Your task to perform on an android device: toggle data saver in the chrome app Image 0: 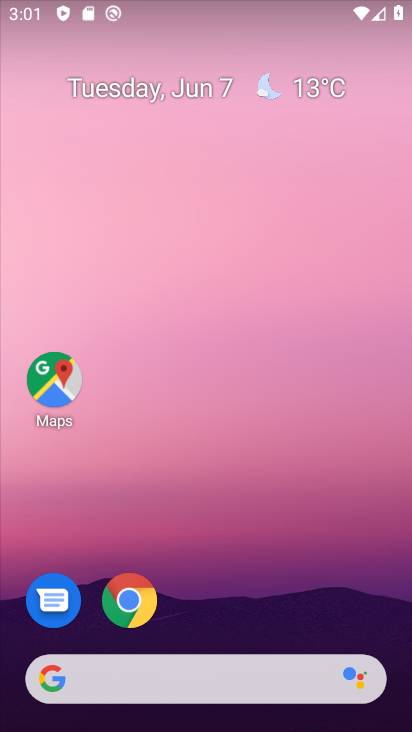
Step 0: drag from (228, 562) to (135, 80)
Your task to perform on an android device: toggle data saver in the chrome app Image 1: 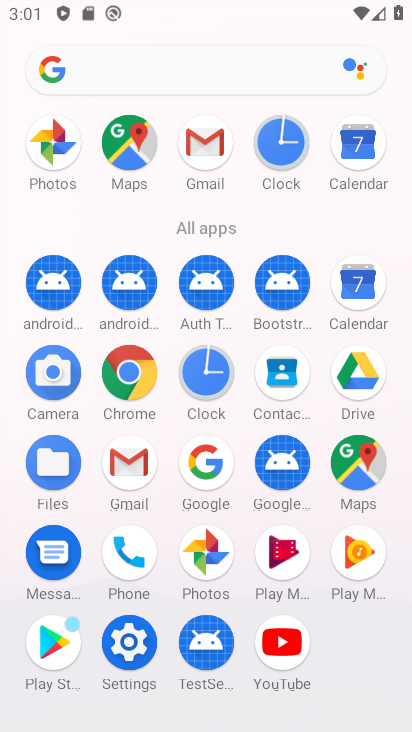
Step 1: click (130, 370)
Your task to perform on an android device: toggle data saver in the chrome app Image 2: 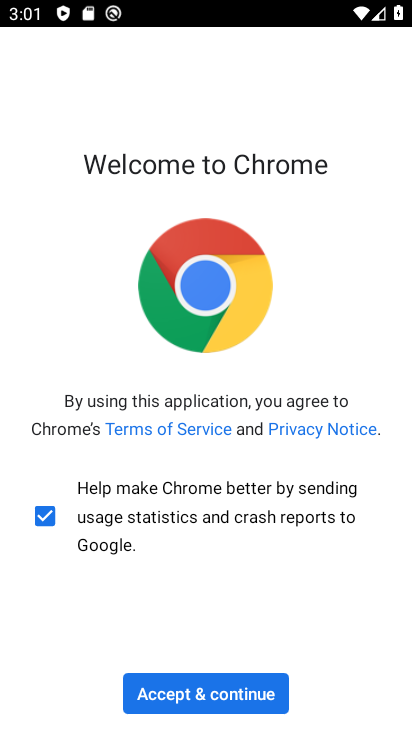
Step 2: click (170, 675)
Your task to perform on an android device: toggle data saver in the chrome app Image 3: 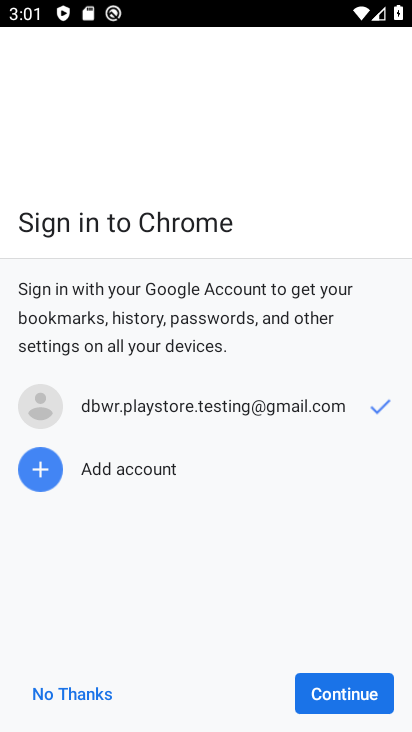
Step 3: click (399, 703)
Your task to perform on an android device: toggle data saver in the chrome app Image 4: 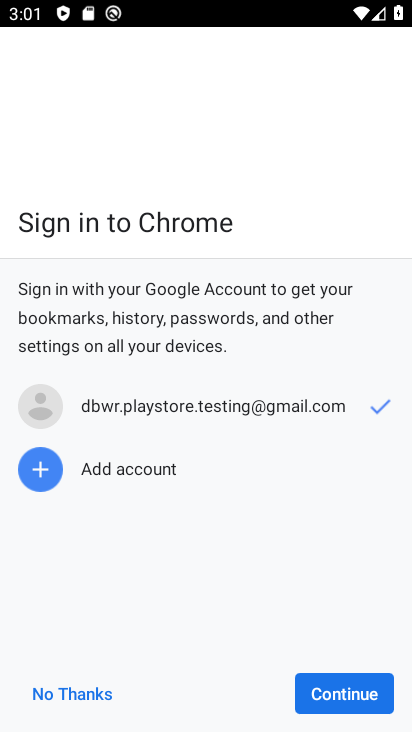
Step 4: click (369, 700)
Your task to perform on an android device: toggle data saver in the chrome app Image 5: 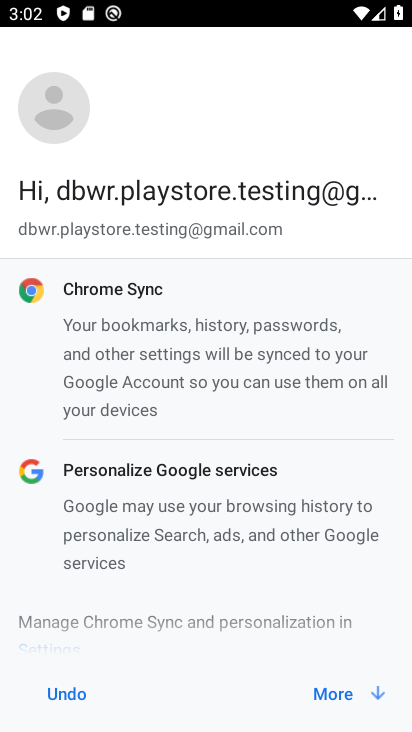
Step 5: click (334, 698)
Your task to perform on an android device: toggle data saver in the chrome app Image 6: 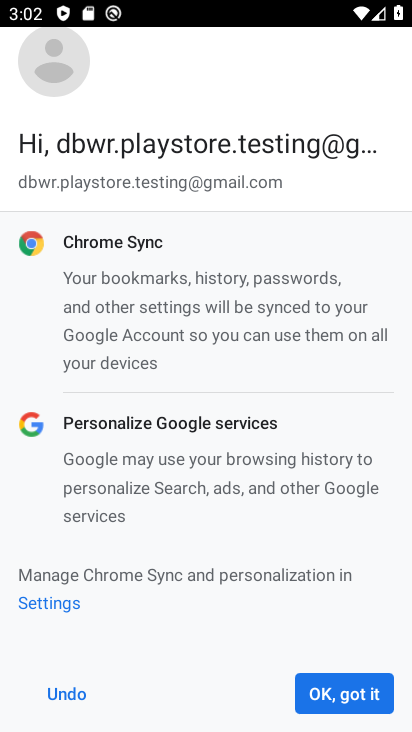
Step 6: click (334, 698)
Your task to perform on an android device: toggle data saver in the chrome app Image 7: 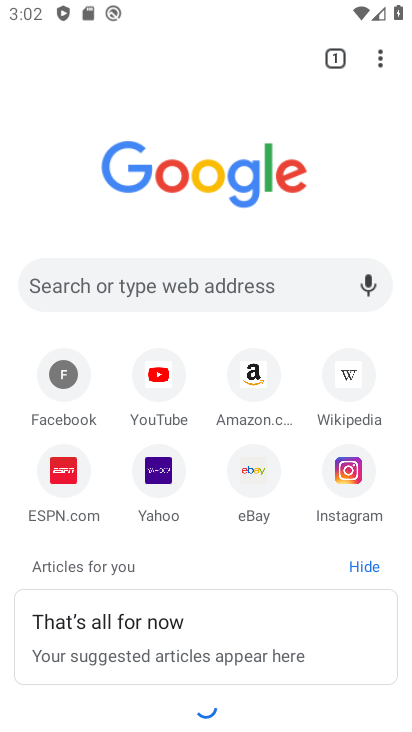
Step 7: click (377, 61)
Your task to perform on an android device: toggle data saver in the chrome app Image 8: 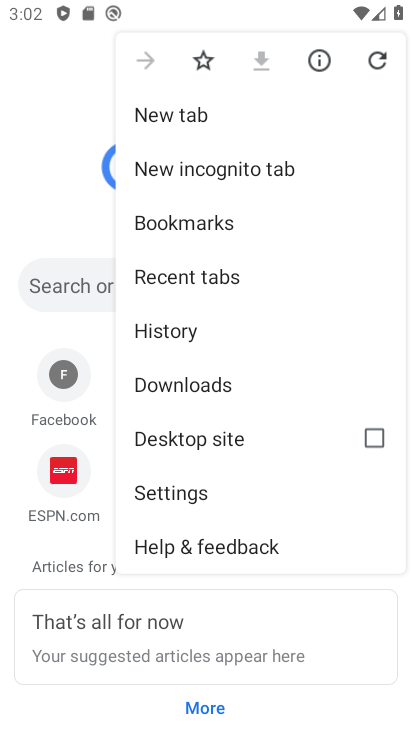
Step 8: click (202, 488)
Your task to perform on an android device: toggle data saver in the chrome app Image 9: 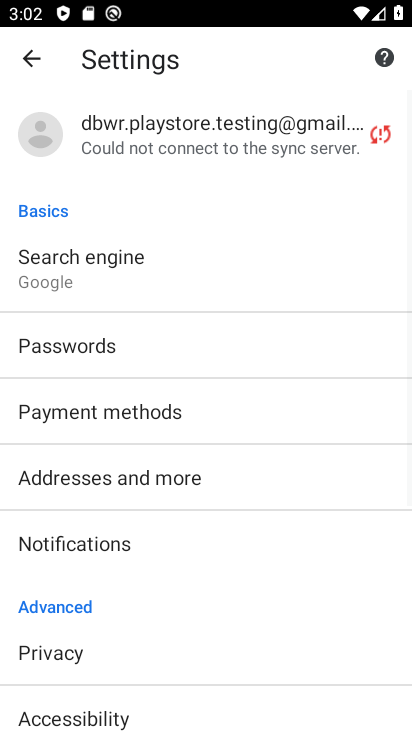
Step 9: drag from (169, 626) to (89, 157)
Your task to perform on an android device: toggle data saver in the chrome app Image 10: 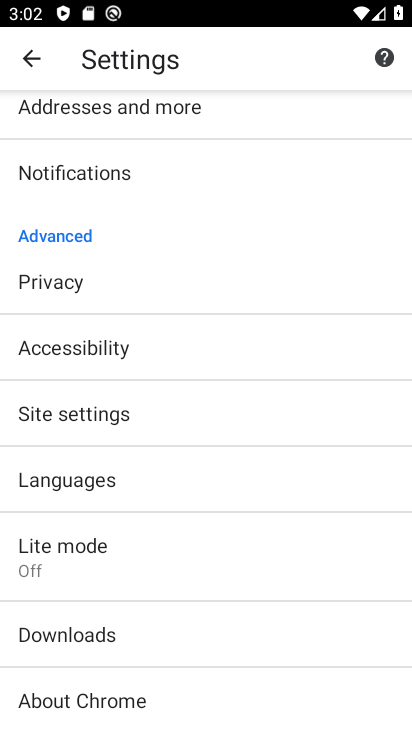
Step 10: click (141, 548)
Your task to perform on an android device: toggle data saver in the chrome app Image 11: 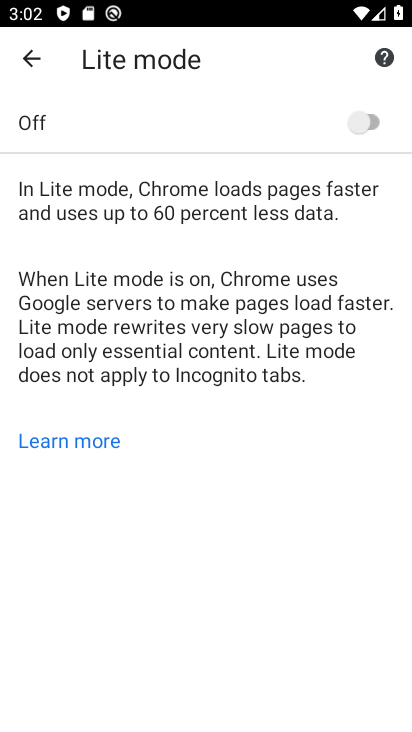
Step 11: click (366, 117)
Your task to perform on an android device: toggle data saver in the chrome app Image 12: 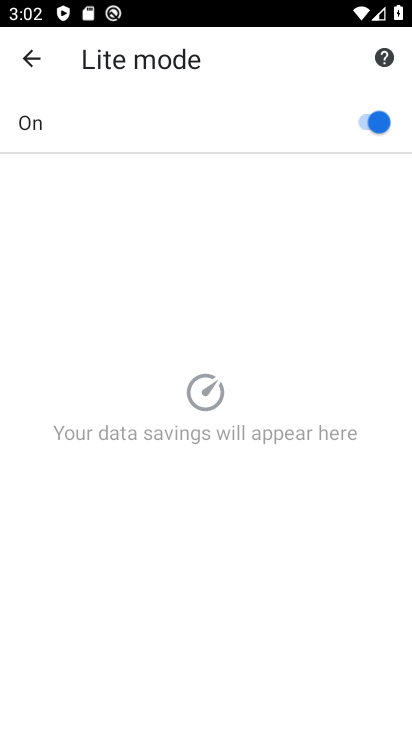
Step 12: task complete